Your task to perform on an android device: Open CNN.com Image 0: 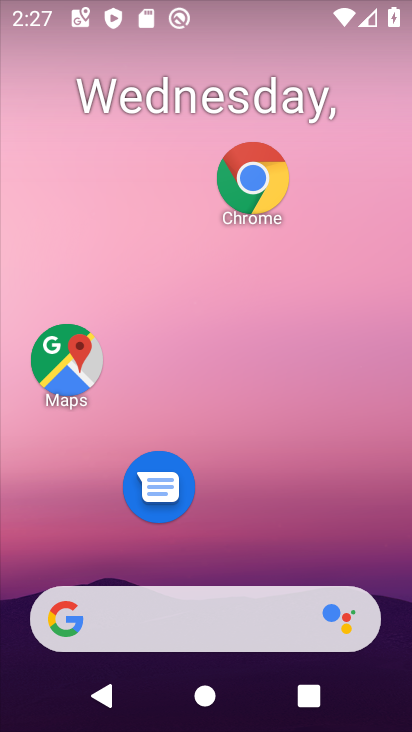
Step 0: click (248, 193)
Your task to perform on an android device: Open CNN.com Image 1: 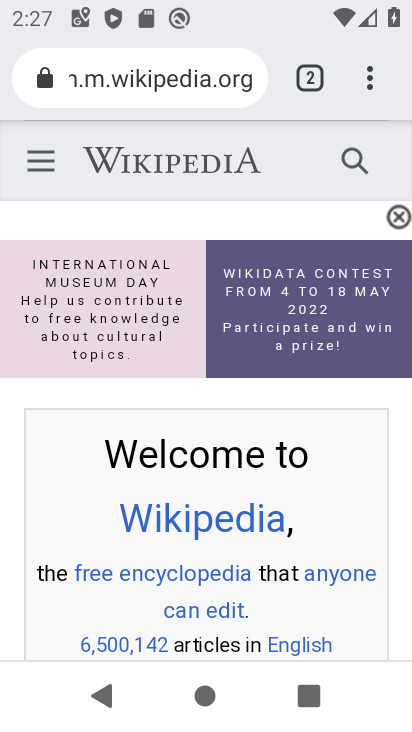
Step 1: click (160, 81)
Your task to perform on an android device: Open CNN.com Image 2: 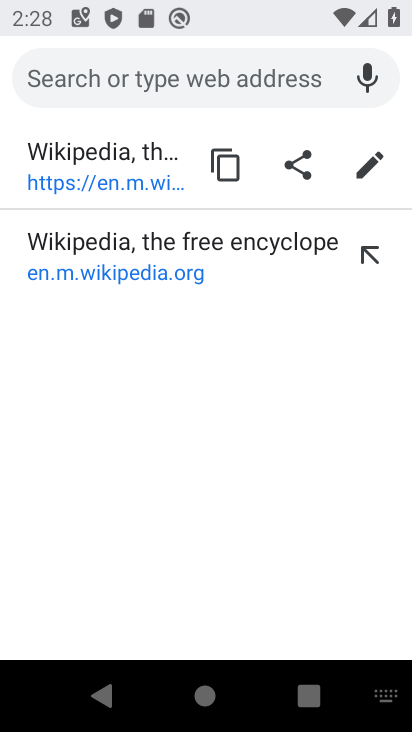
Step 2: type "CNN.com"
Your task to perform on an android device: Open CNN.com Image 3: 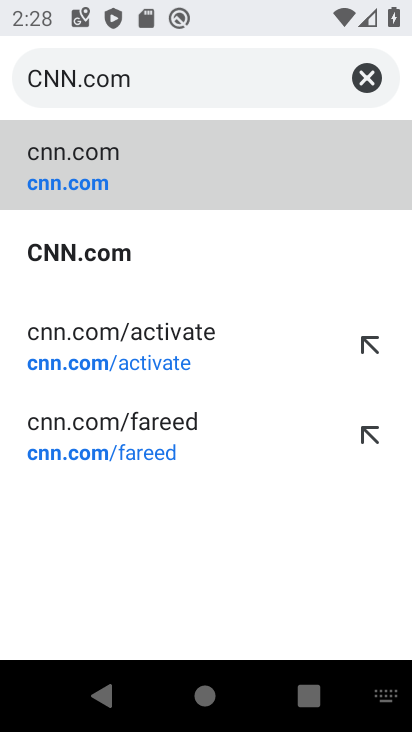
Step 3: click (127, 159)
Your task to perform on an android device: Open CNN.com Image 4: 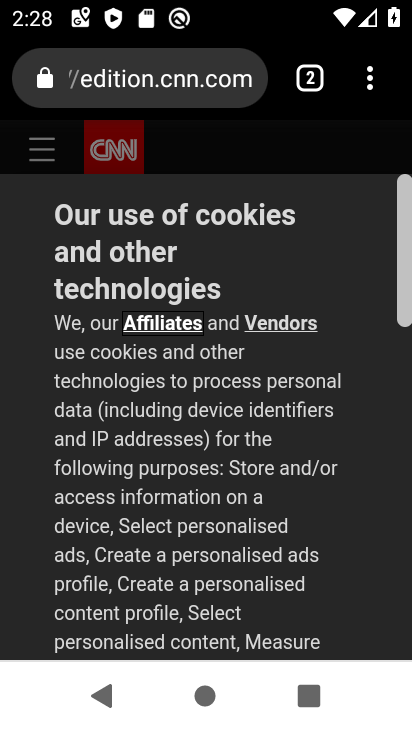
Step 4: task complete